Your task to perform on an android device: check data usage Image 0: 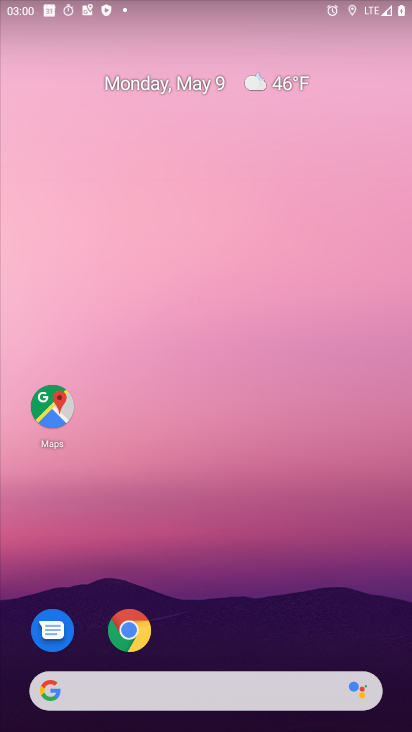
Step 0: drag from (281, 2) to (287, 475)
Your task to perform on an android device: check data usage Image 1: 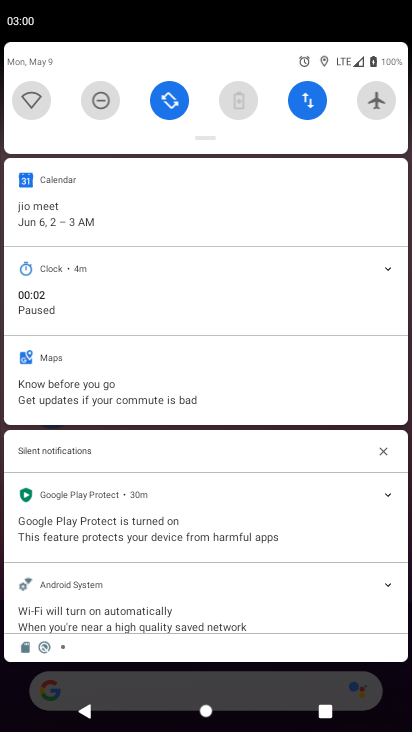
Step 1: click (301, 105)
Your task to perform on an android device: check data usage Image 2: 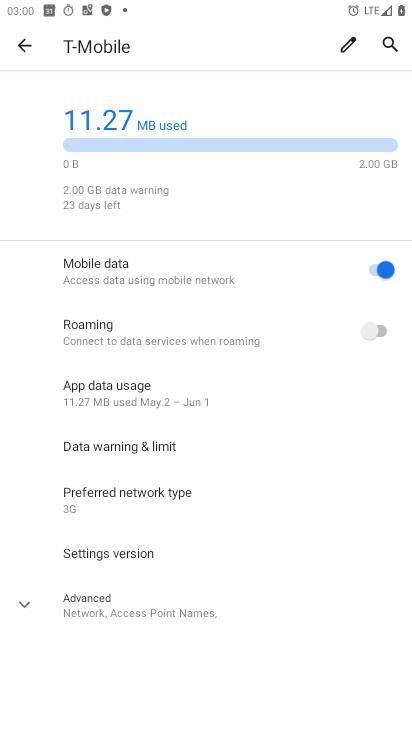
Step 2: task complete